Your task to perform on an android device: star an email in the gmail app Image 0: 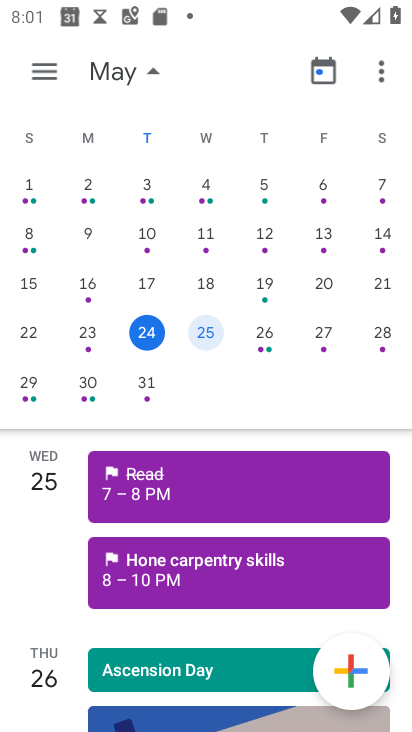
Step 0: press home button
Your task to perform on an android device: star an email in the gmail app Image 1: 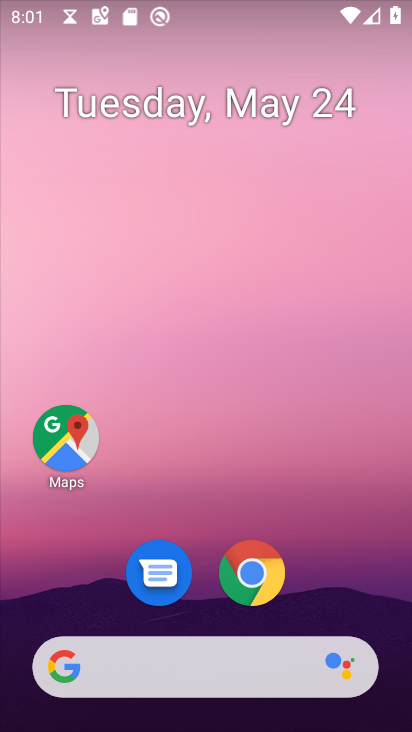
Step 1: drag from (377, 526) to (397, 5)
Your task to perform on an android device: star an email in the gmail app Image 2: 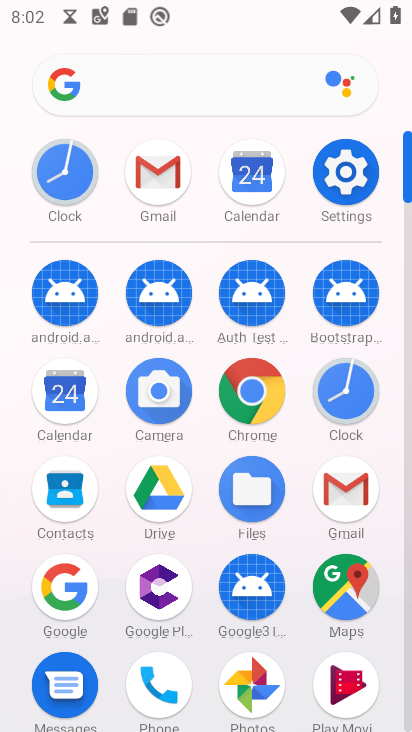
Step 2: click (354, 497)
Your task to perform on an android device: star an email in the gmail app Image 3: 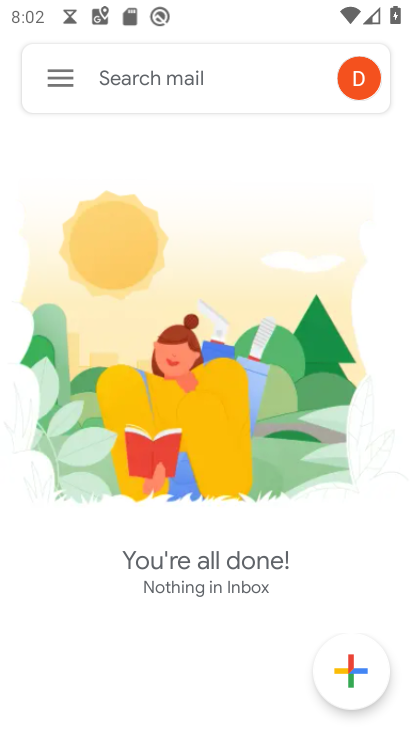
Step 3: click (51, 83)
Your task to perform on an android device: star an email in the gmail app Image 4: 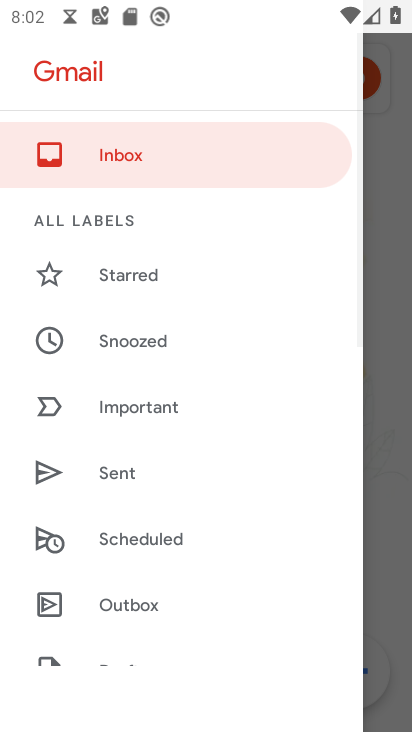
Step 4: task complete